Your task to perform on an android device: create a new album in the google photos Image 0: 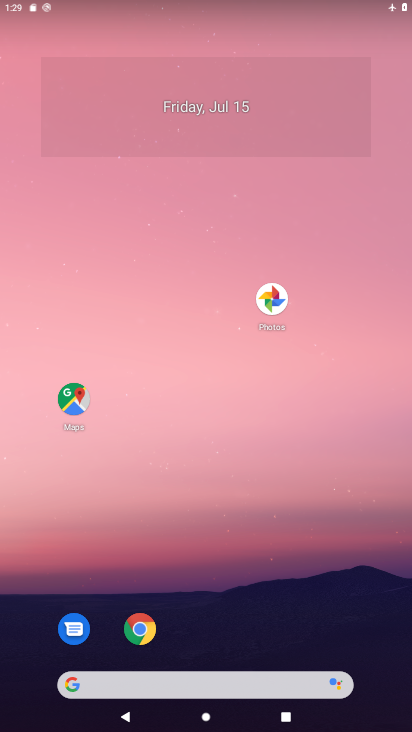
Step 0: drag from (280, 606) to (278, 320)
Your task to perform on an android device: create a new album in the google photos Image 1: 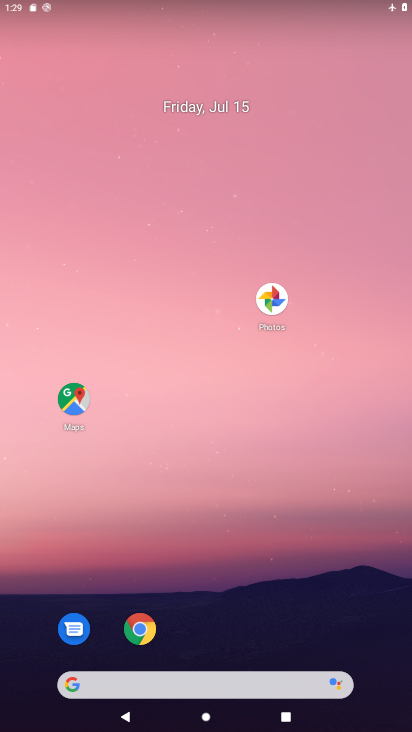
Step 1: drag from (262, 617) to (246, 270)
Your task to perform on an android device: create a new album in the google photos Image 2: 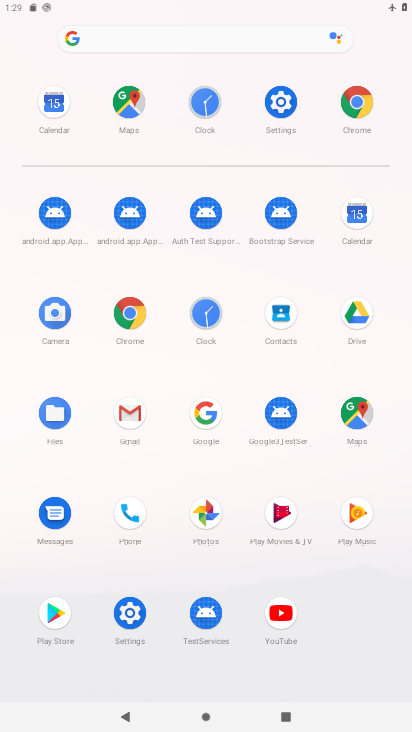
Step 2: click (202, 507)
Your task to perform on an android device: create a new album in the google photos Image 3: 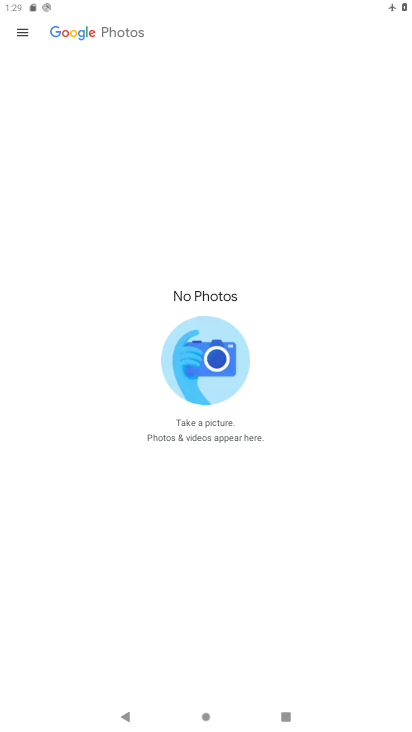
Step 3: task complete